Your task to perform on an android device: View the shopping cart on target.com. Add usb-c to usb-a to the cart on target.com Image 0: 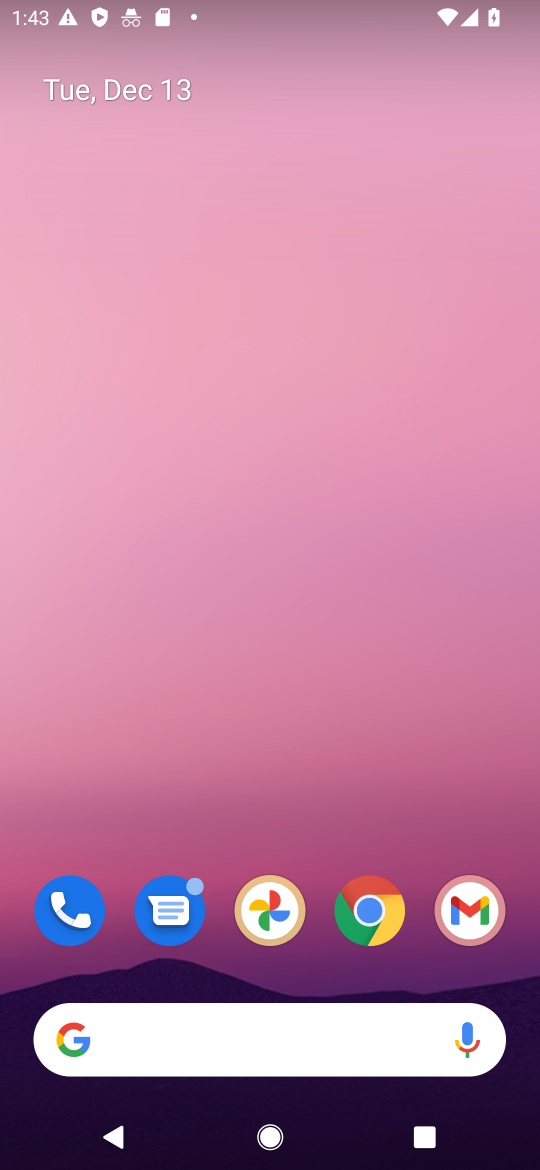
Step 0: click (368, 909)
Your task to perform on an android device: View the shopping cart on target.com. Add usb-c to usb-a to the cart on target.com Image 1: 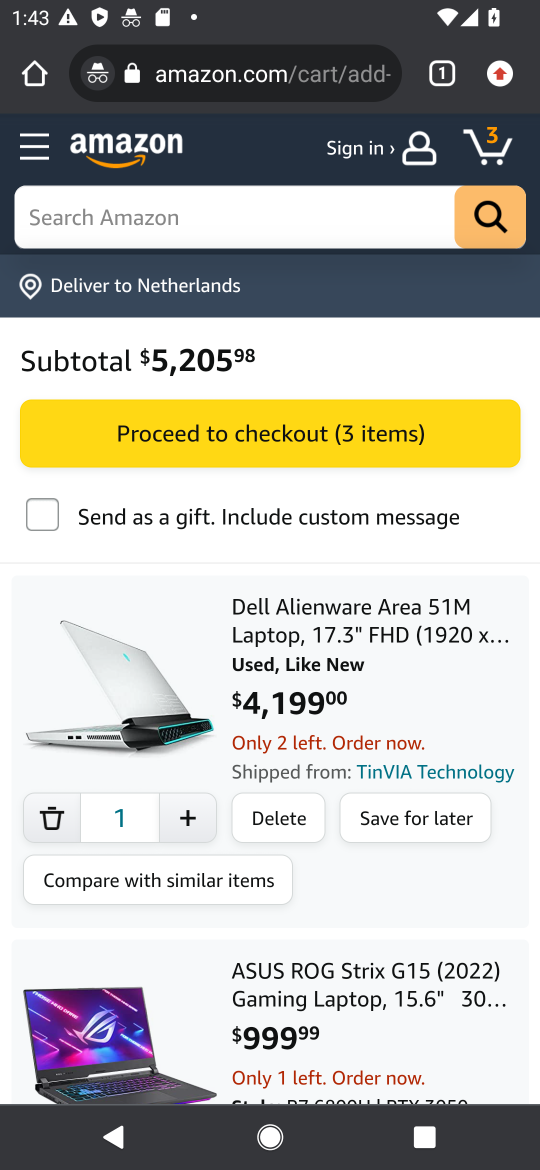
Step 1: click (254, 67)
Your task to perform on an android device: View the shopping cart on target.com. Add usb-c to usb-a to the cart on target.com Image 2: 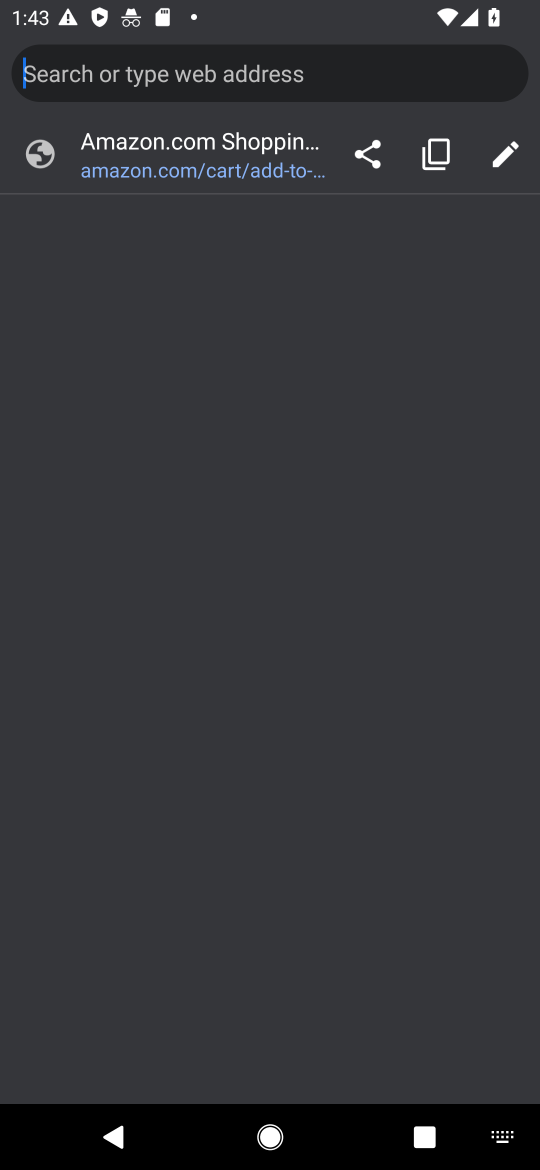
Step 2: type "TARGET"
Your task to perform on an android device: View the shopping cart on target.com. Add usb-c to usb-a to the cart on target.com Image 3: 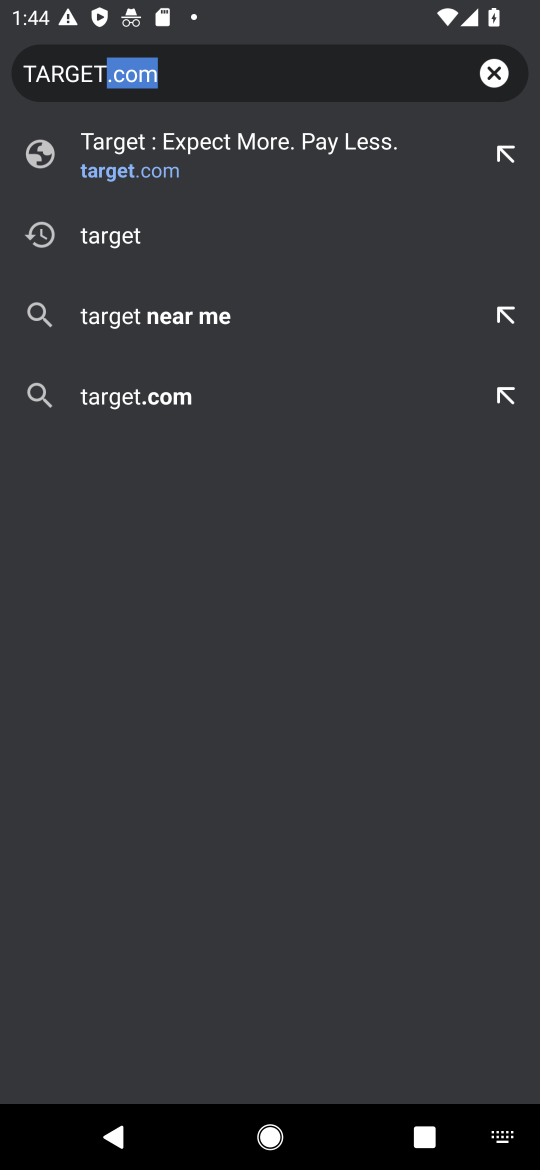
Step 3: click (106, 171)
Your task to perform on an android device: View the shopping cart on target.com. Add usb-c to usb-a to the cart on target.com Image 4: 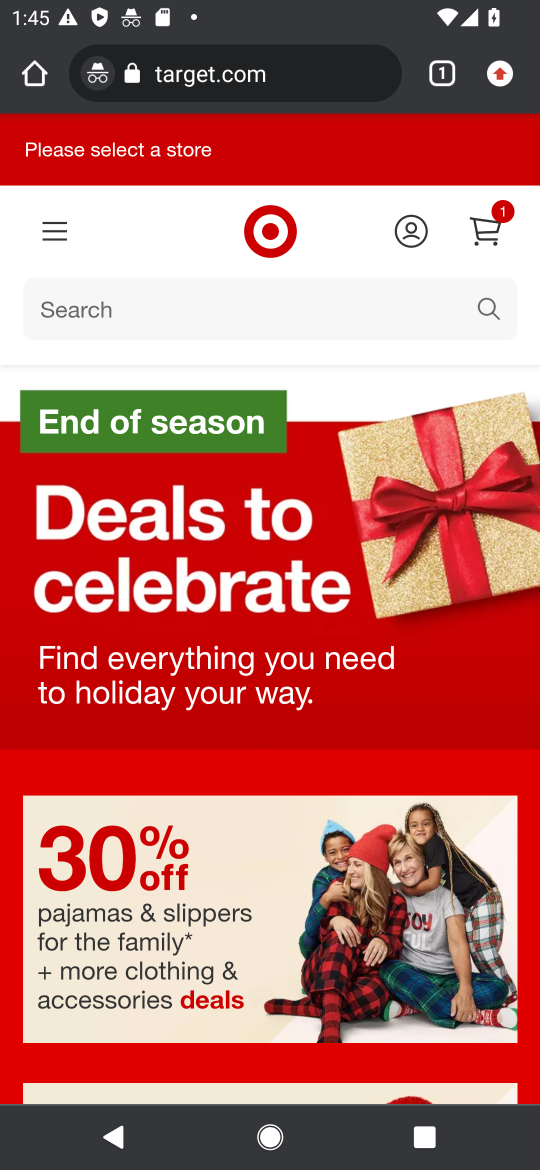
Step 4: click (199, 300)
Your task to perform on an android device: View the shopping cart on target.com. Add usb-c to usb-a to the cart on target.com Image 5: 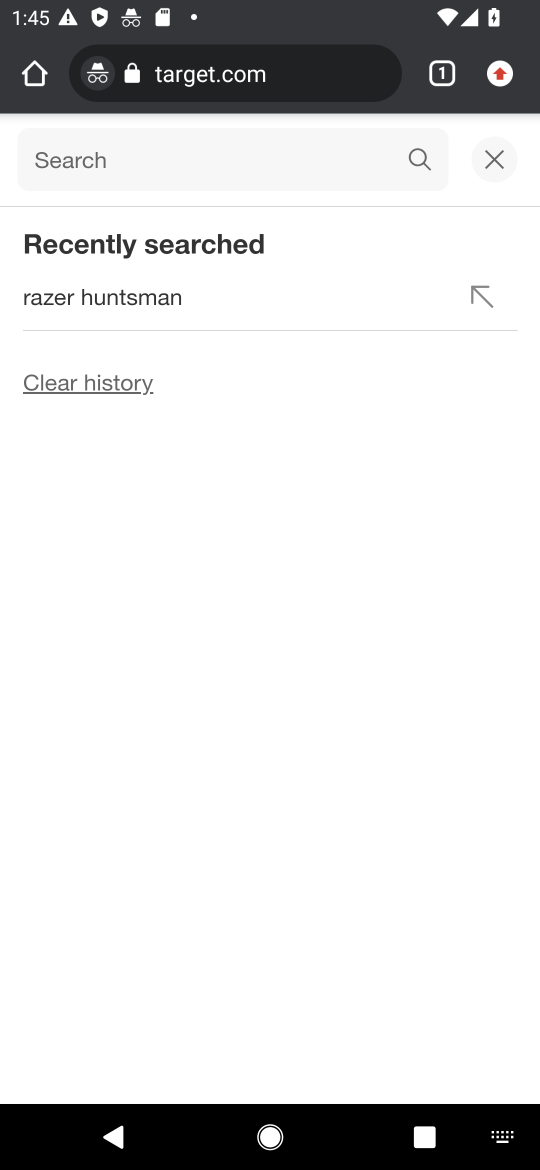
Step 5: type "usb-c to usb-a"
Your task to perform on an android device: View the shopping cart on target.com. Add usb-c to usb-a to the cart on target.com Image 6: 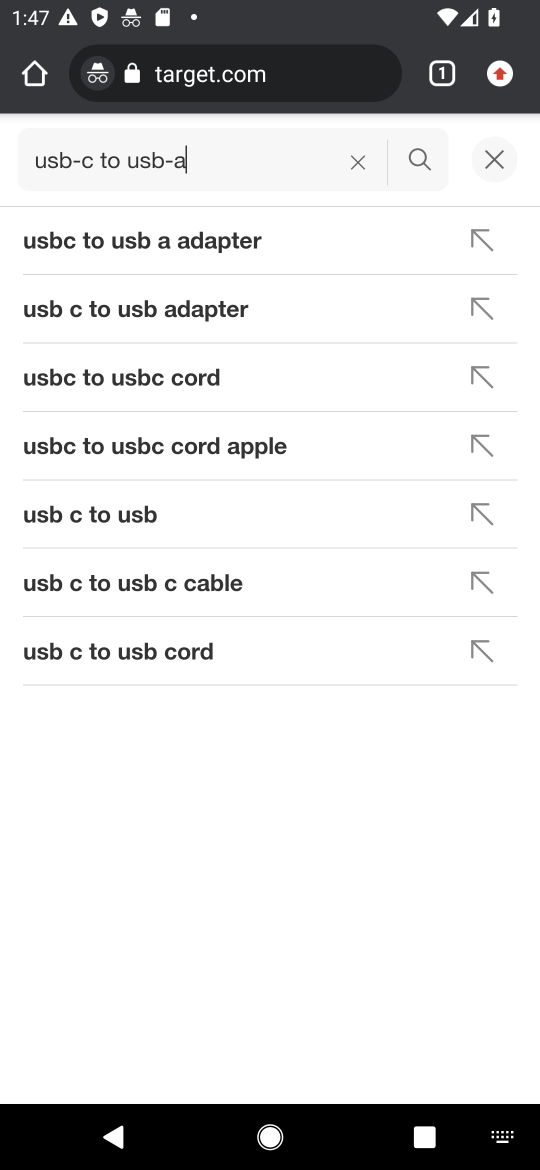
Step 6: click (260, 227)
Your task to perform on an android device: View the shopping cart on target.com. Add usb-c to usb-a to the cart on target.com Image 7: 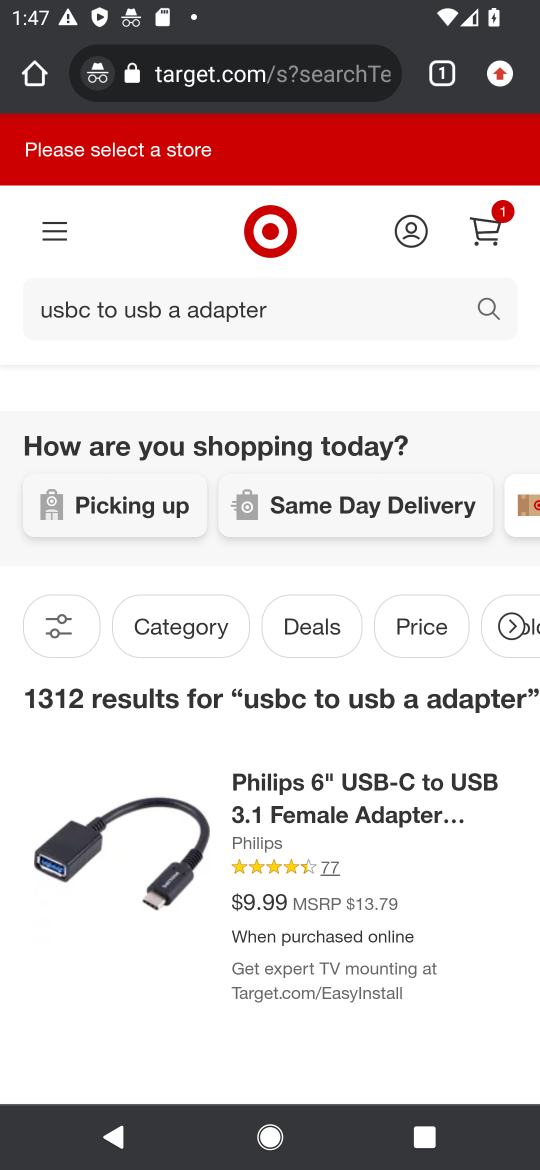
Step 7: click (398, 853)
Your task to perform on an android device: View the shopping cart on target.com. Add usb-c to usb-a to the cart on target.com Image 8: 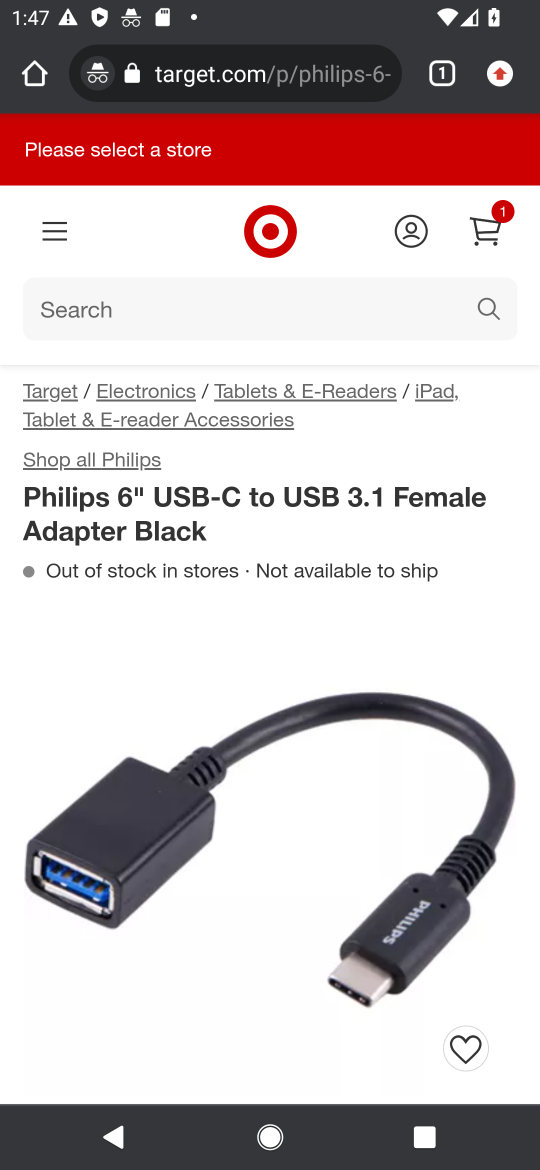
Step 8: drag from (329, 900) to (326, 165)
Your task to perform on an android device: View the shopping cart on target.com. Add usb-c to usb-a to the cart on target.com Image 9: 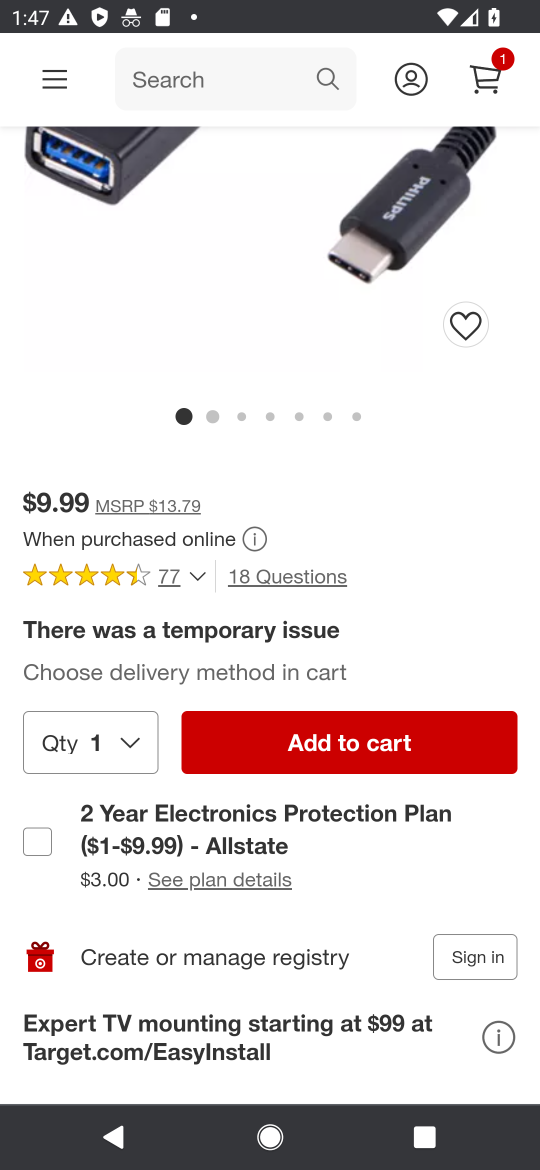
Step 9: click (319, 742)
Your task to perform on an android device: View the shopping cart on target.com. Add usb-c to usb-a to the cart on target.com Image 10: 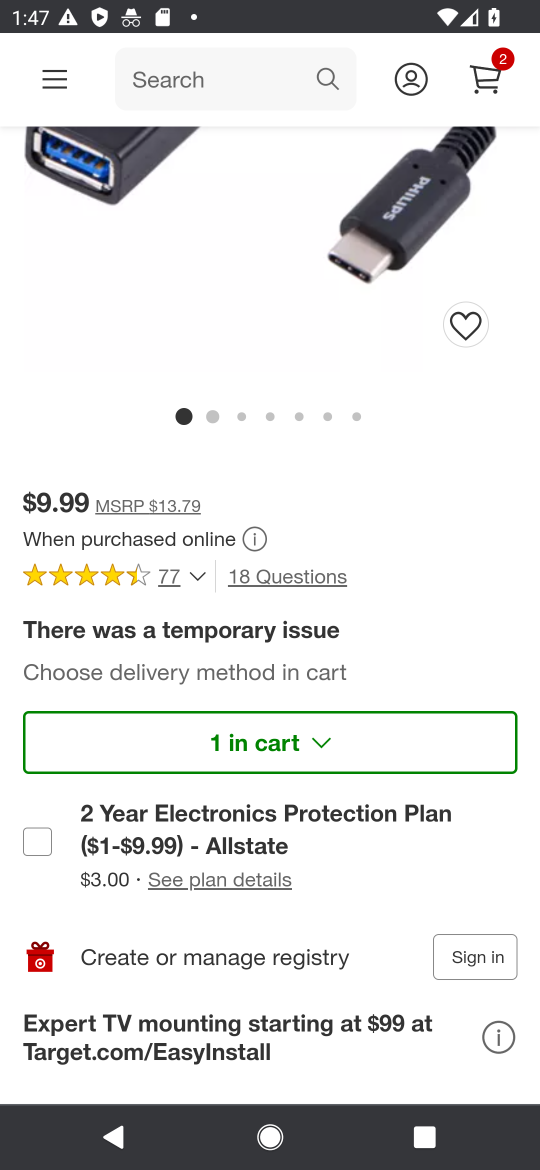
Step 10: task complete